Your task to perform on an android device: check out phone information Image 0: 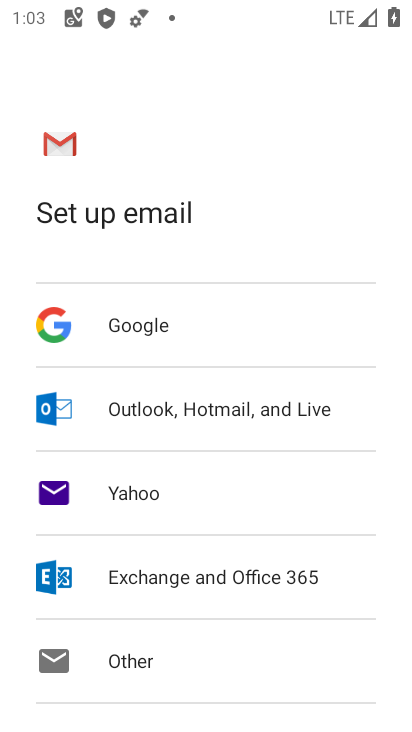
Step 0: press home button
Your task to perform on an android device: check out phone information Image 1: 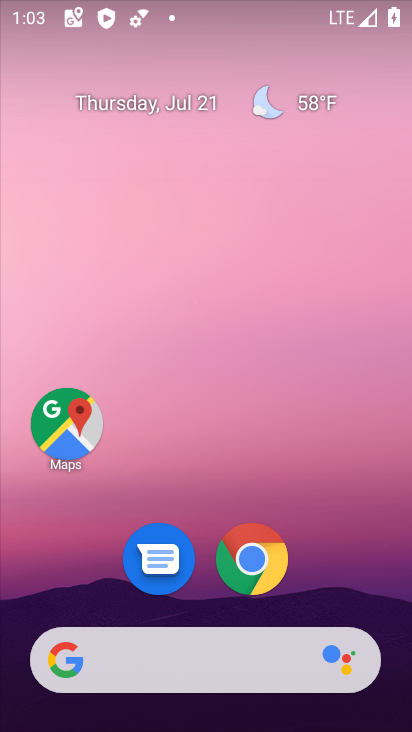
Step 1: drag from (361, 554) to (373, 130)
Your task to perform on an android device: check out phone information Image 2: 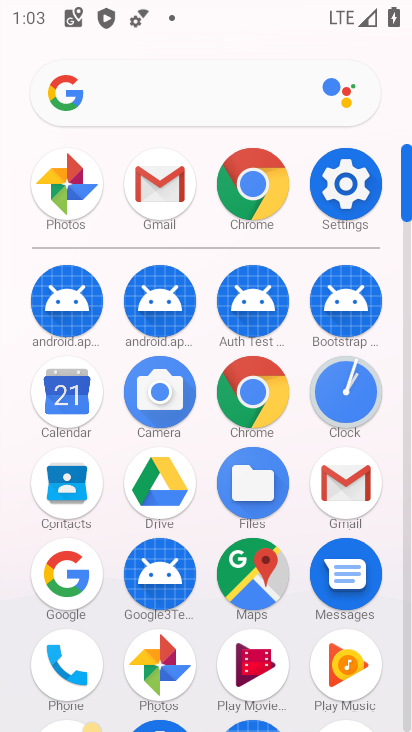
Step 2: drag from (296, 530) to (293, 327)
Your task to perform on an android device: check out phone information Image 3: 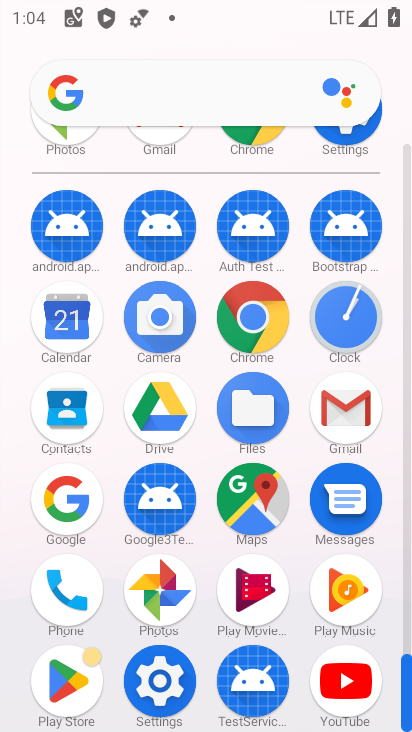
Step 3: click (71, 583)
Your task to perform on an android device: check out phone information Image 4: 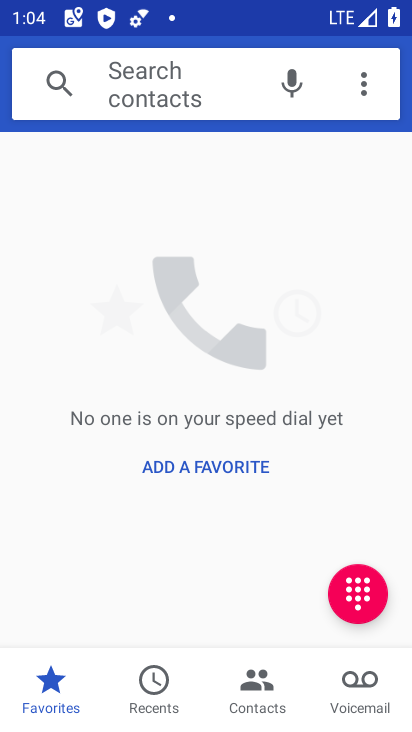
Step 4: task complete